Your task to perform on an android device: What's on my calendar today? Image 0: 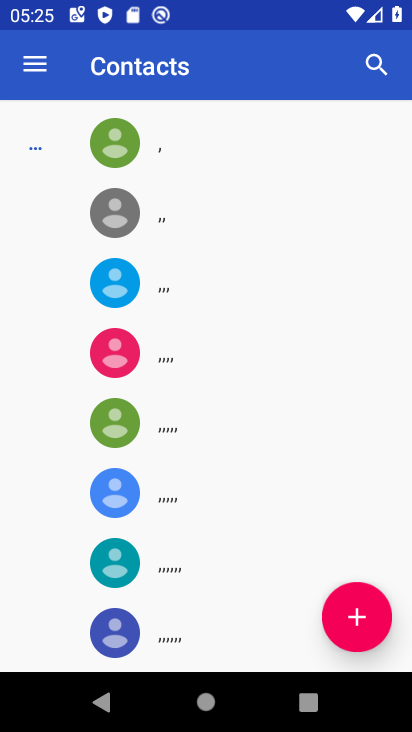
Step 0: press home button
Your task to perform on an android device: What's on my calendar today? Image 1: 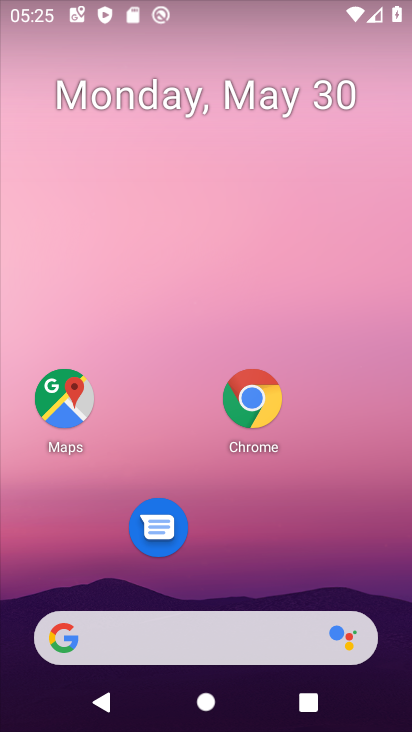
Step 1: drag from (225, 724) to (234, 109)
Your task to perform on an android device: What's on my calendar today? Image 2: 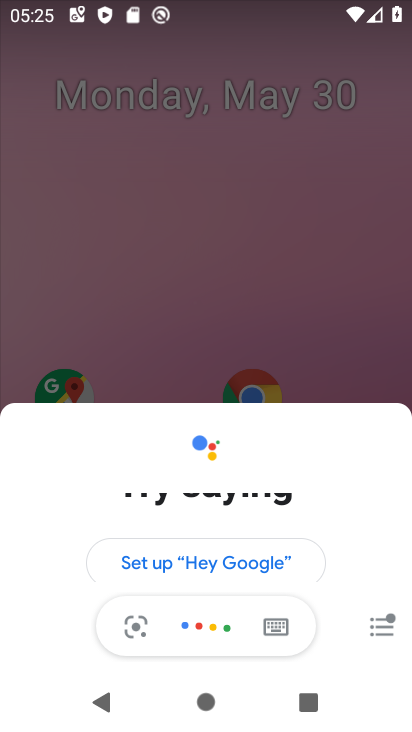
Step 2: press home button
Your task to perform on an android device: What's on my calendar today? Image 3: 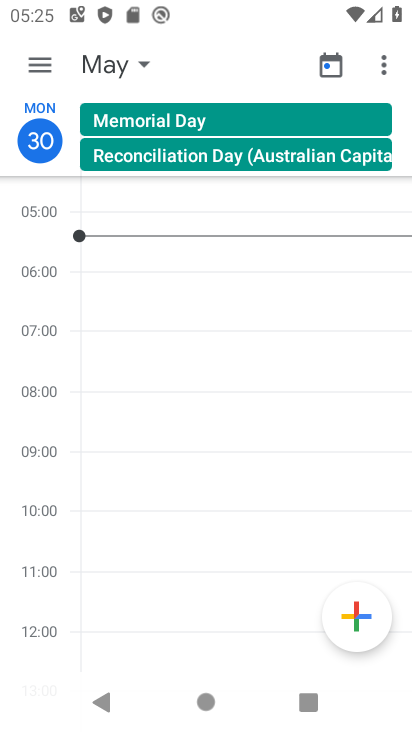
Step 3: press home button
Your task to perform on an android device: What's on my calendar today? Image 4: 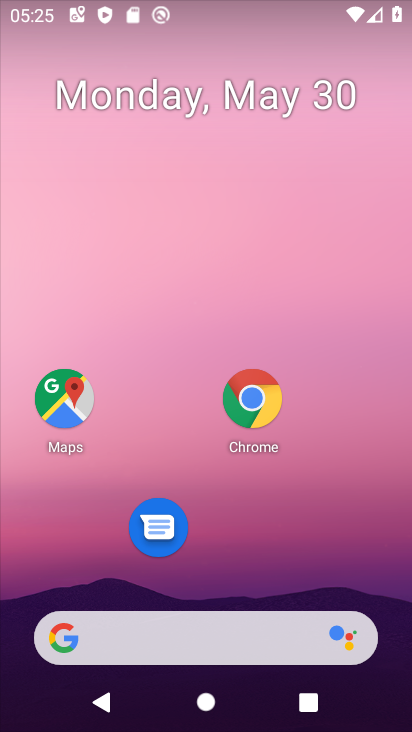
Step 4: click (236, 576)
Your task to perform on an android device: What's on my calendar today? Image 5: 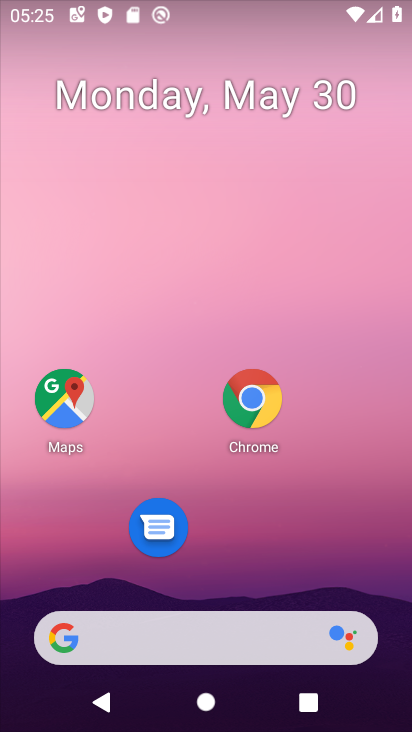
Step 5: drag from (237, 347) to (239, 96)
Your task to perform on an android device: What's on my calendar today? Image 6: 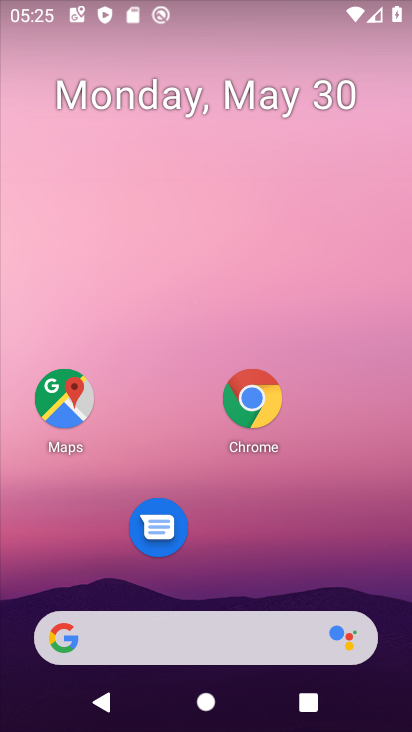
Step 6: drag from (233, 727) to (205, 67)
Your task to perform on an android device: What's on my calendar today? Image 7: 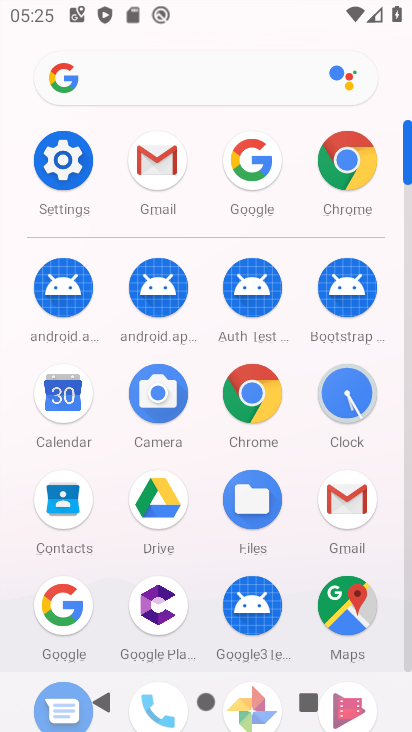
Step 7: click (58, 394)
Your task to perform on an android device: What's on my calendar today? Image 8: 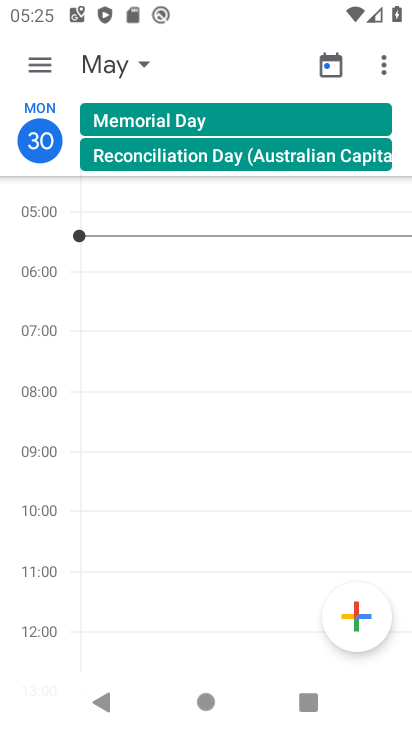
Step 8: click (146, 65)
Your task to perform on an android device: What's on my calendar today? Image 9: 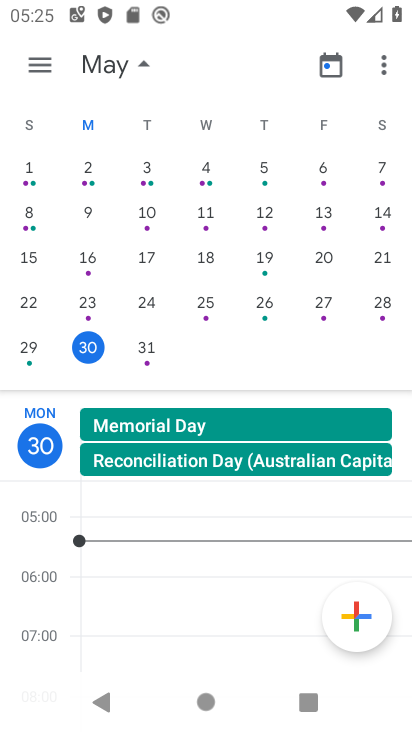
Step 9: click (96, 349)
Your task to perform on an android device: What's on my calendar today? Image 10: 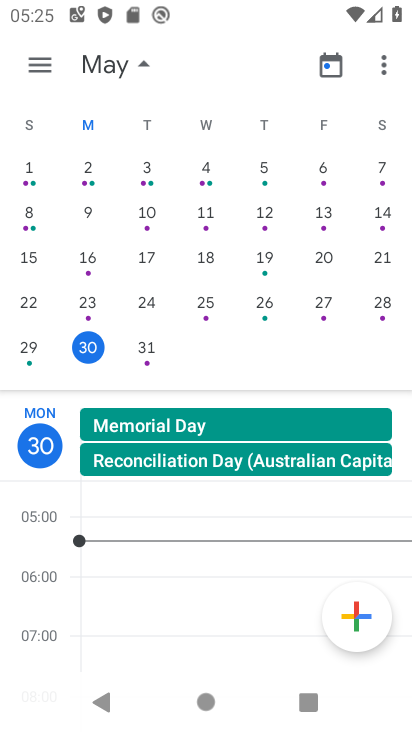
Step 10: task complete